Your task to perform on an android device: Open calendar and show me the second week of next month Image 0: 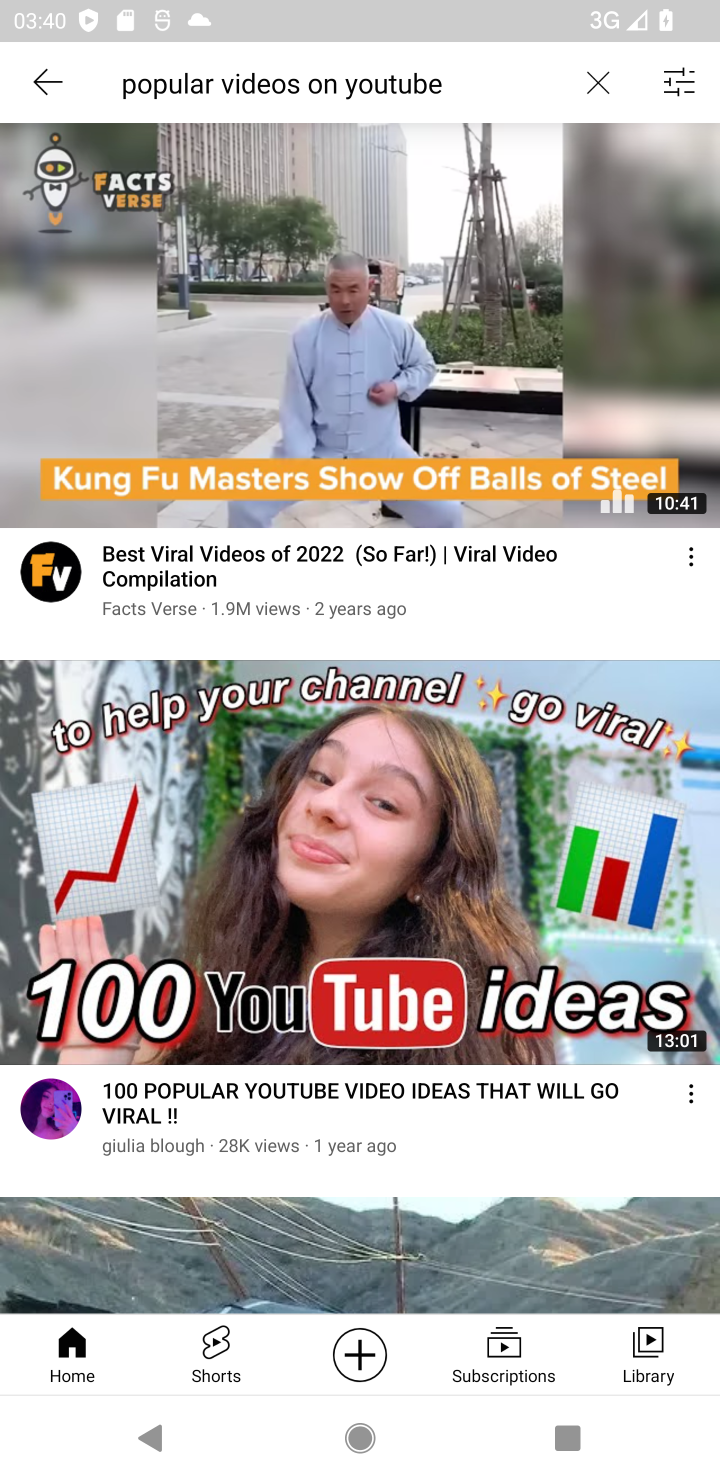
Step 0: press home button
Your task to perform on an android device: Open calendar and show me the second week of next month Image 1: 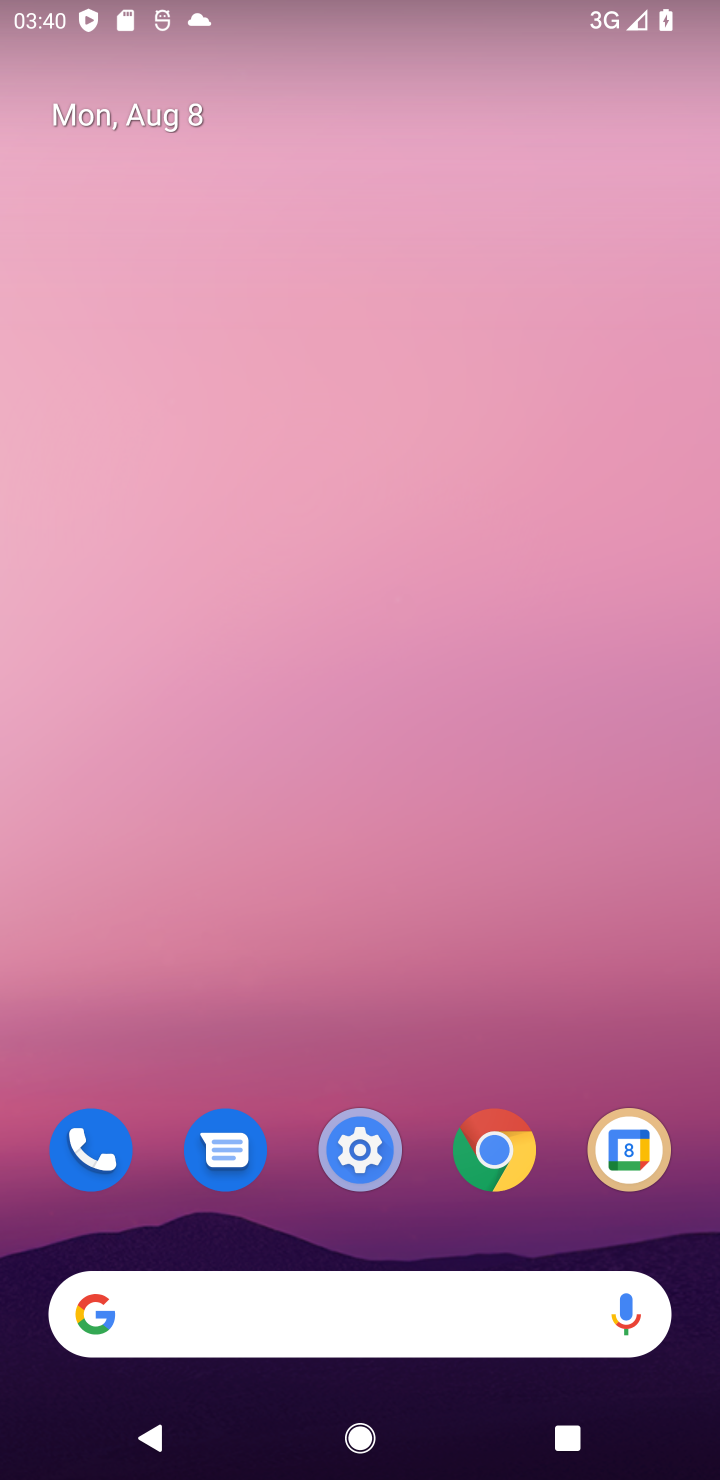
Step 1: click (611, 1144)
Your task to perform on an android device: Open calendar and show me the second week of next month Image 2: 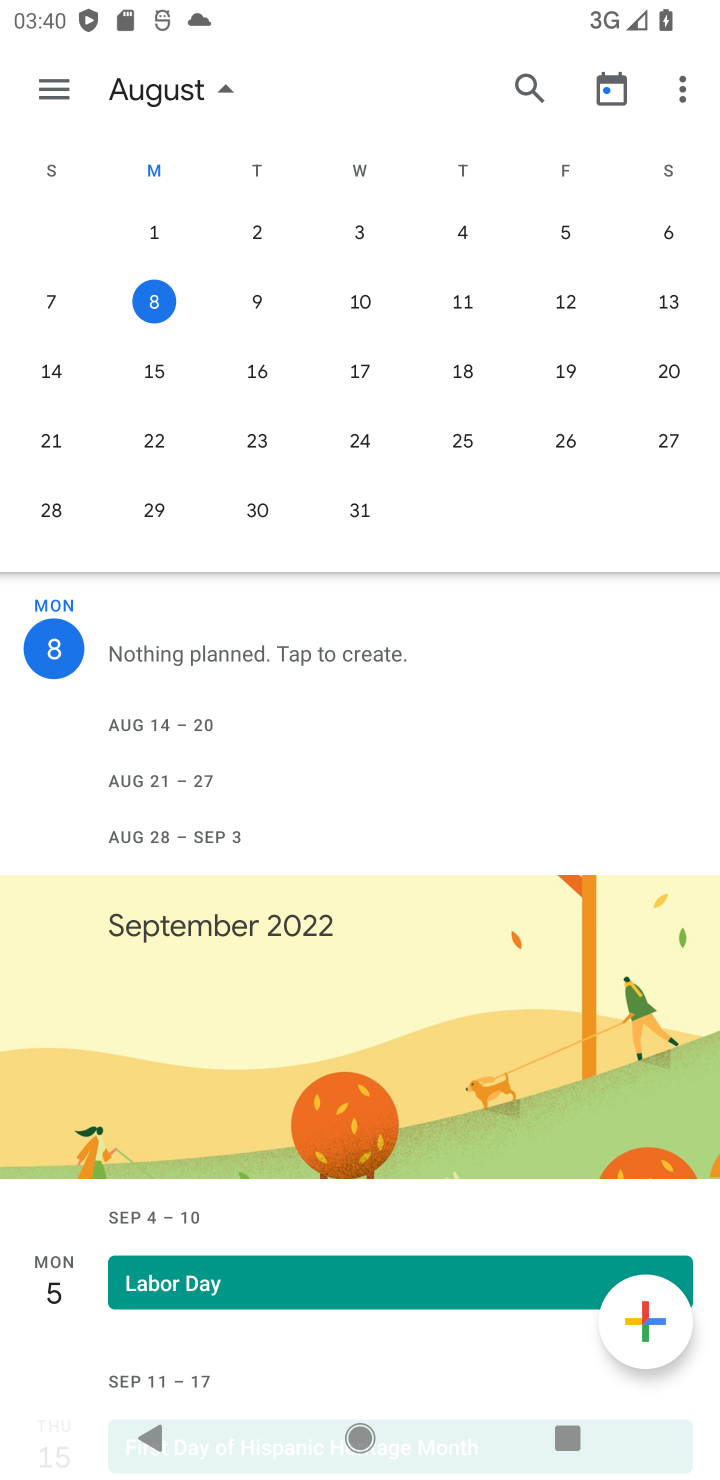
Step 2: drag from (684, 300) to (78, 351)
Your task to perform on an android device: Open calendar and show me the second week of next month Image 3: 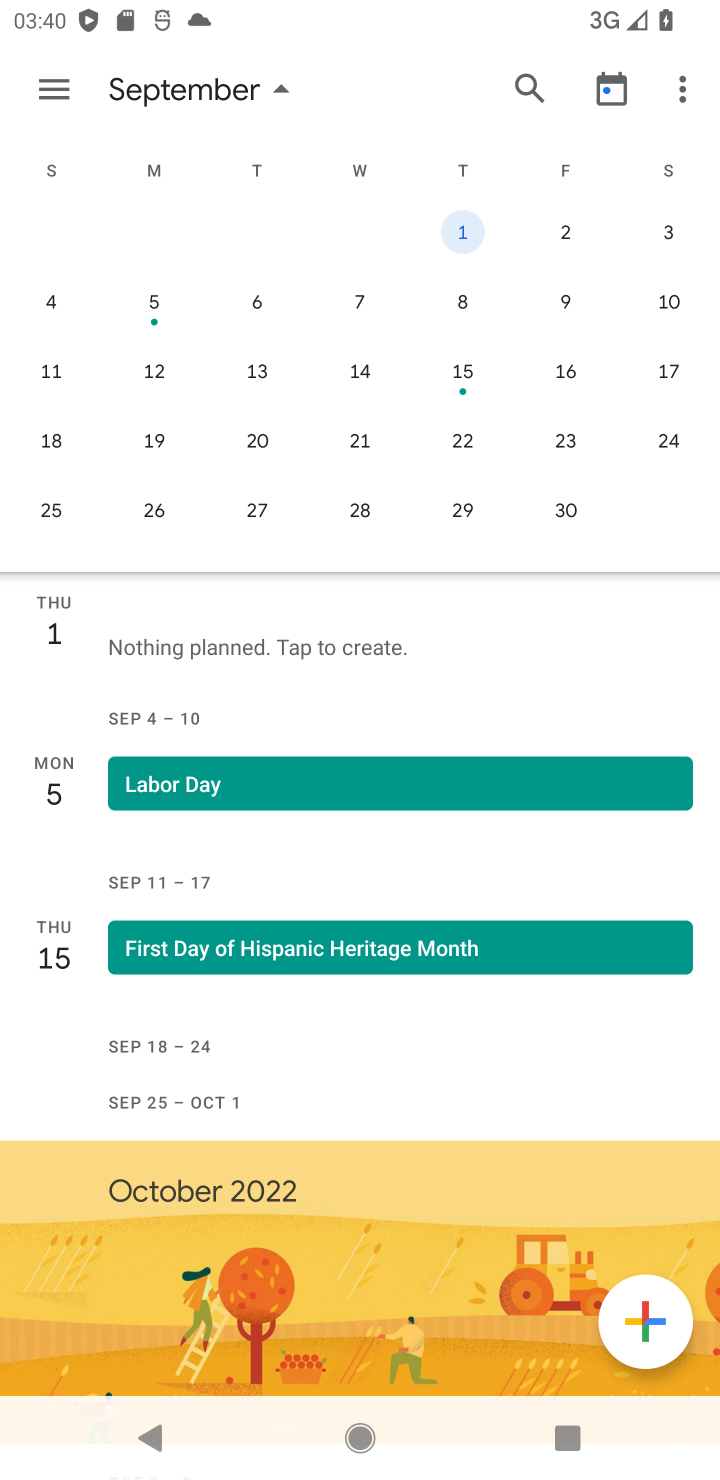
Step 3: click (159, 303)
Your task to perform on an android device: Open calendar and show me the second week of next month Image 4: 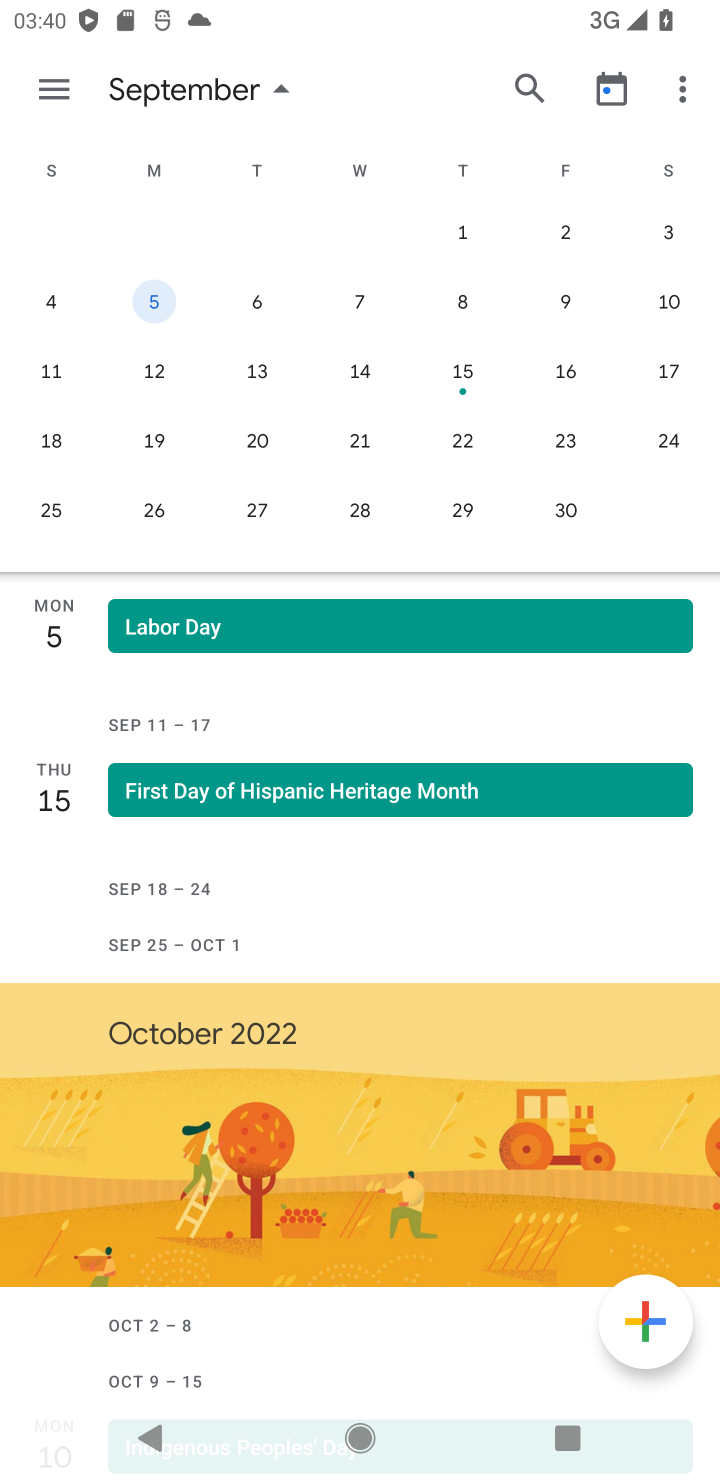
Step 4: task complete